Your task to perform on an android device: Open Yahoo.com Image 0: 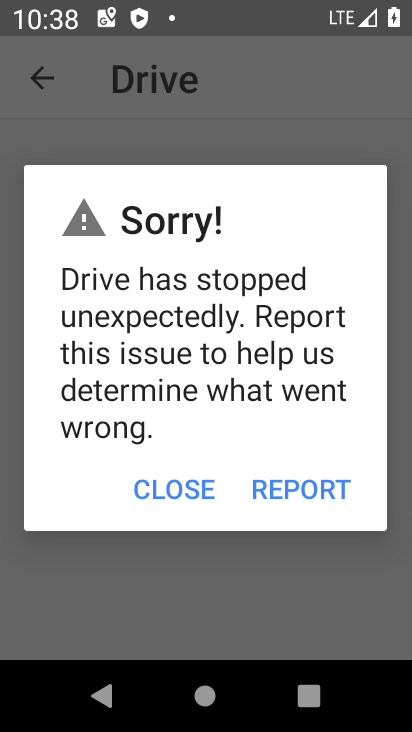
Step 0: press home button
Your task to perform on an android device: Open Yahoo.com Image 1: 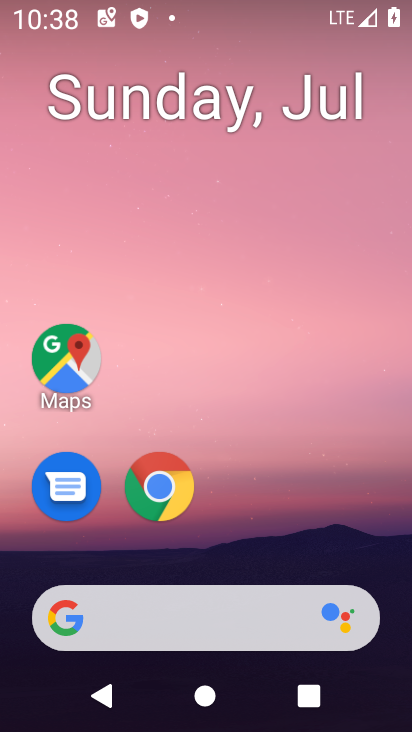
Step 1: drag from (381, 557) to (385, 86)
Your task to perform on an android device: Open Yahoo.com Image 2: 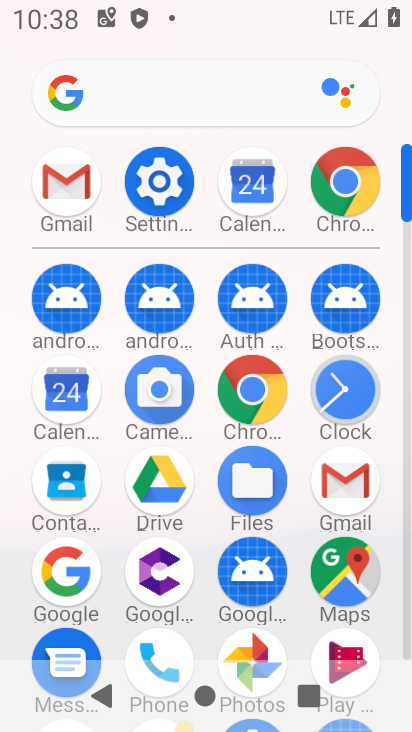
Step 2: click (264, 385)
Your task to perform on an android device: Open Yahoo.com Image 3: 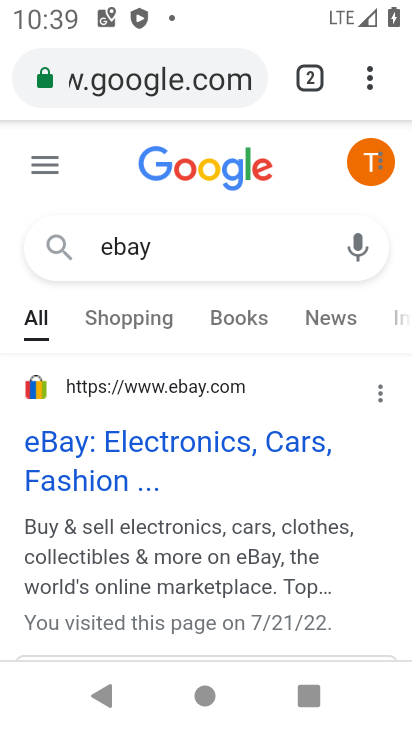
Step 3: click (213, 94)
Your task to perform on an android device: Open Yahoo.com Image 4: 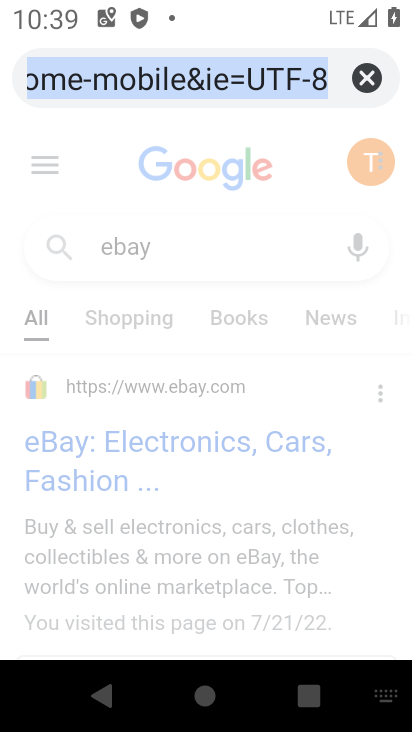
Step 4: type "yahoo.com"
Your task to perform on an android device: Open Yahoo.com Image 5: 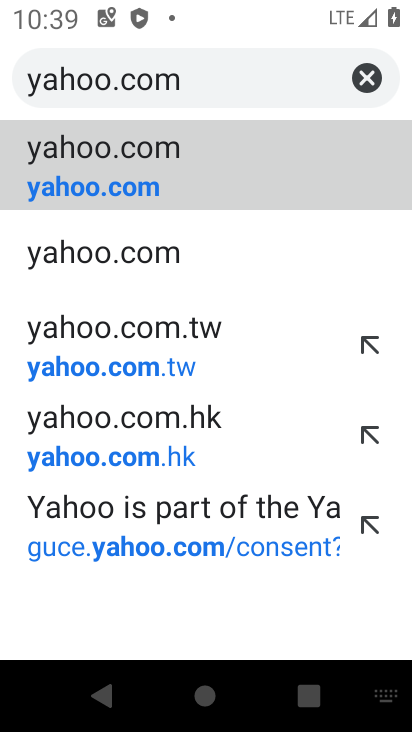
Step 5: click (298, 174)
Your task to perform on an android device: Open Yahoo.com Image 6: 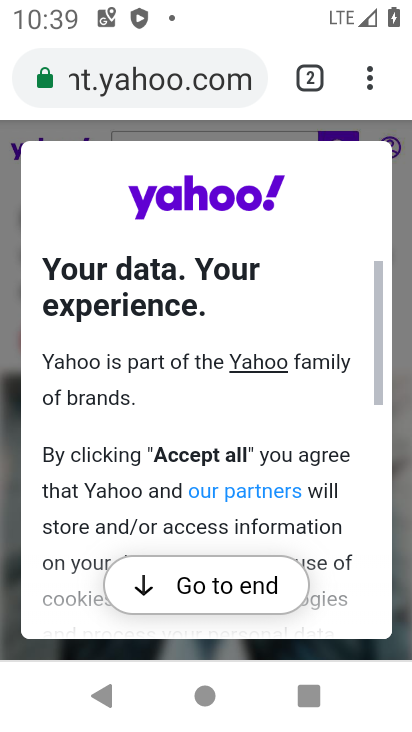
Step 6: task complete